Your task to perform on an android device: Do I have any events today? Image 0: 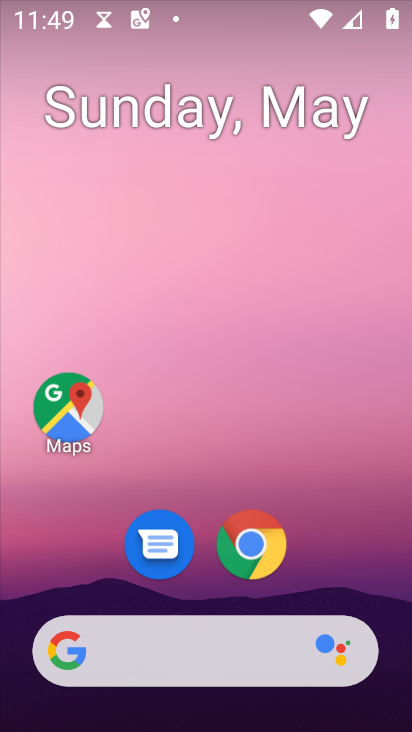
Step 0: drag from (304, 401) to (286, 258)
Your task to perform on an android device: Do I have any events today? Image 1: 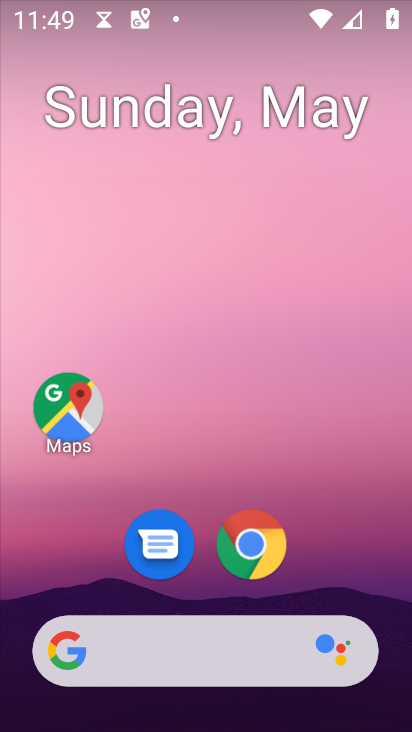
Step 1: drag from (332, 556) to (308, 246)
Your task to perform on an android device: Do I have any events today? Image 2: 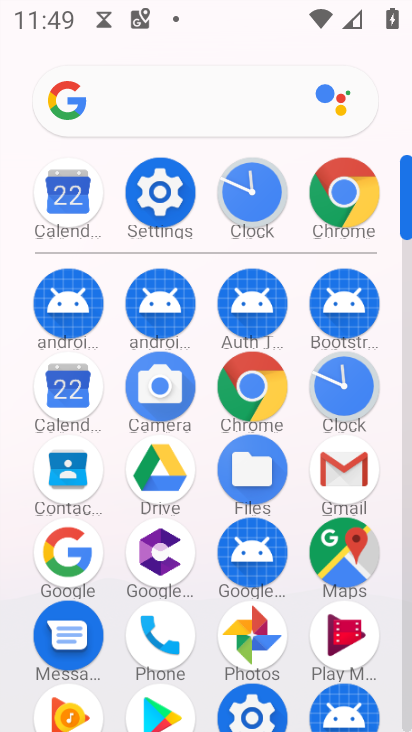
Step 2: click (69, 384)
Your task to perform on an android device: Do I have any events today? Image 3: 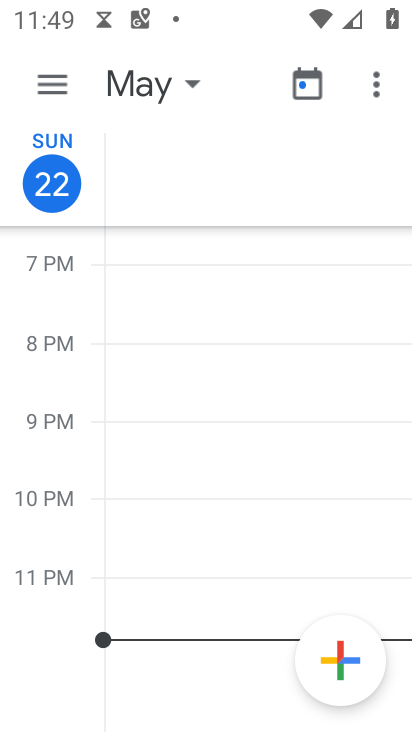
Step 3: click (51, 96)
Your task to perform on an android device: Do I have any events today? Image 4: 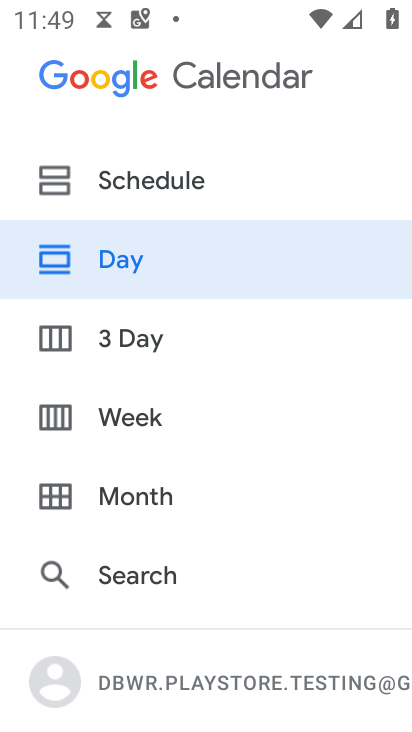
Step 4: click (136, 259)
Your task to perform on an android device: Do I have any events today? Image 5: 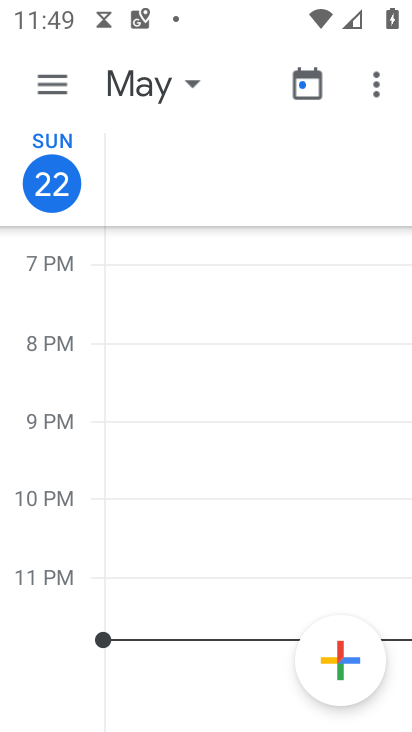
Step 5: task complete